Your task to perform on an android device: Go to settings Image 0: 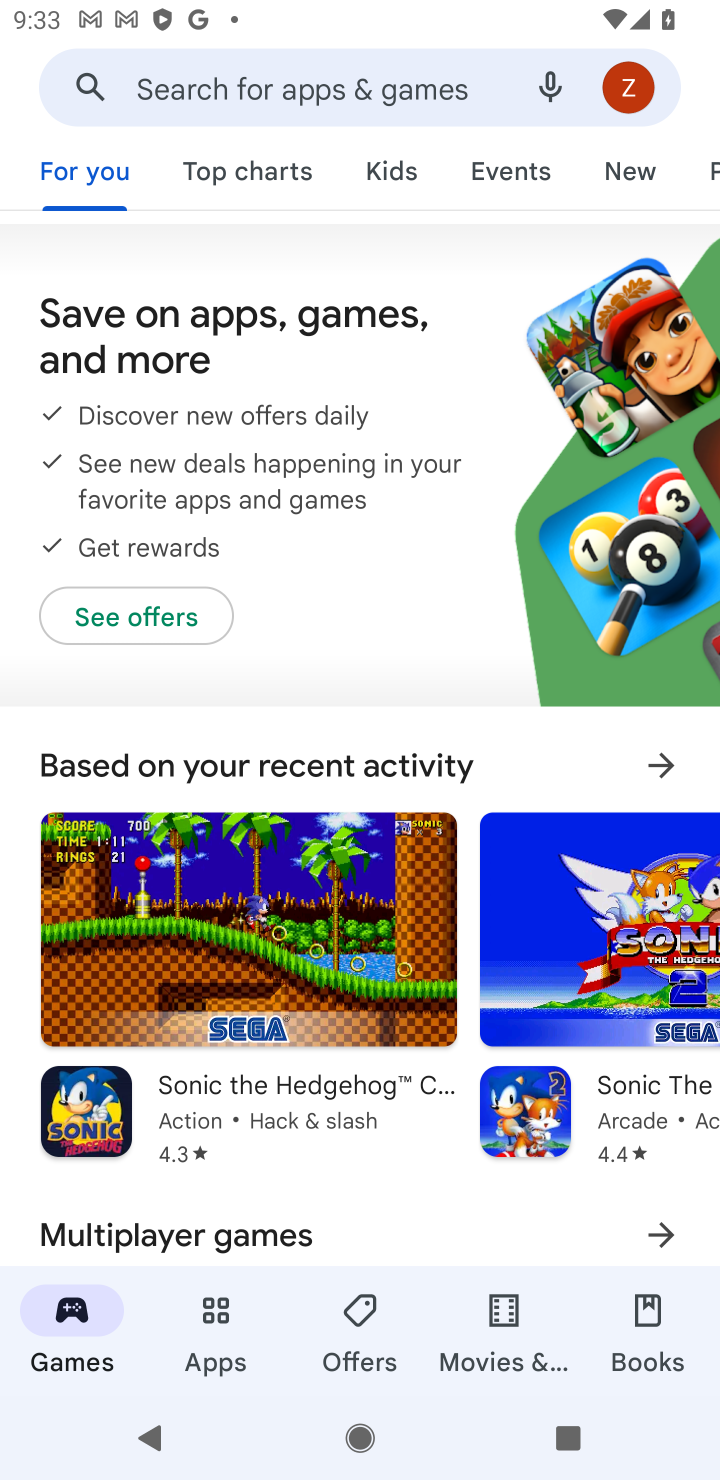
Step 0: press home button
Your task to perform on an android device: Go to settings Image 1: 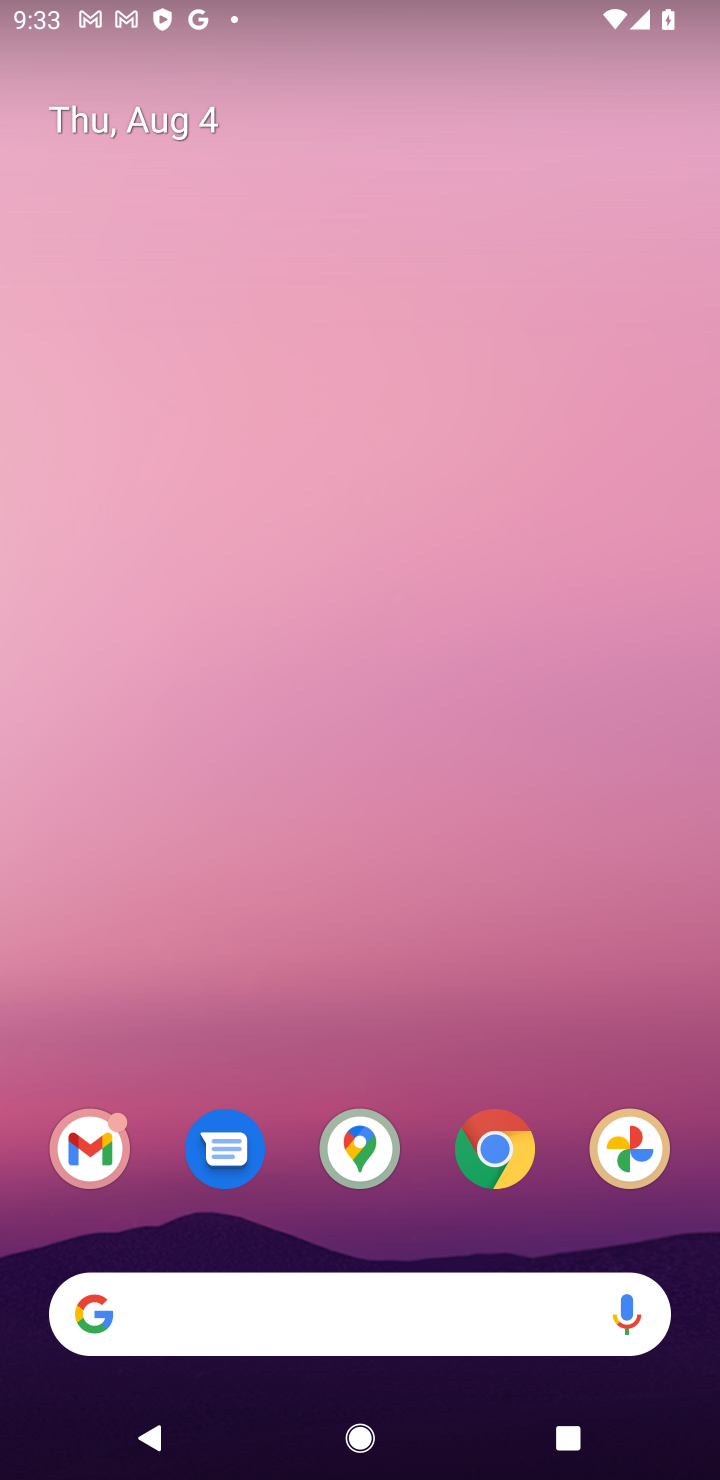
Step 1: drag from (555, 1210) to (539, 602)
Your task to perform on an android device: Go to settings Image 2: 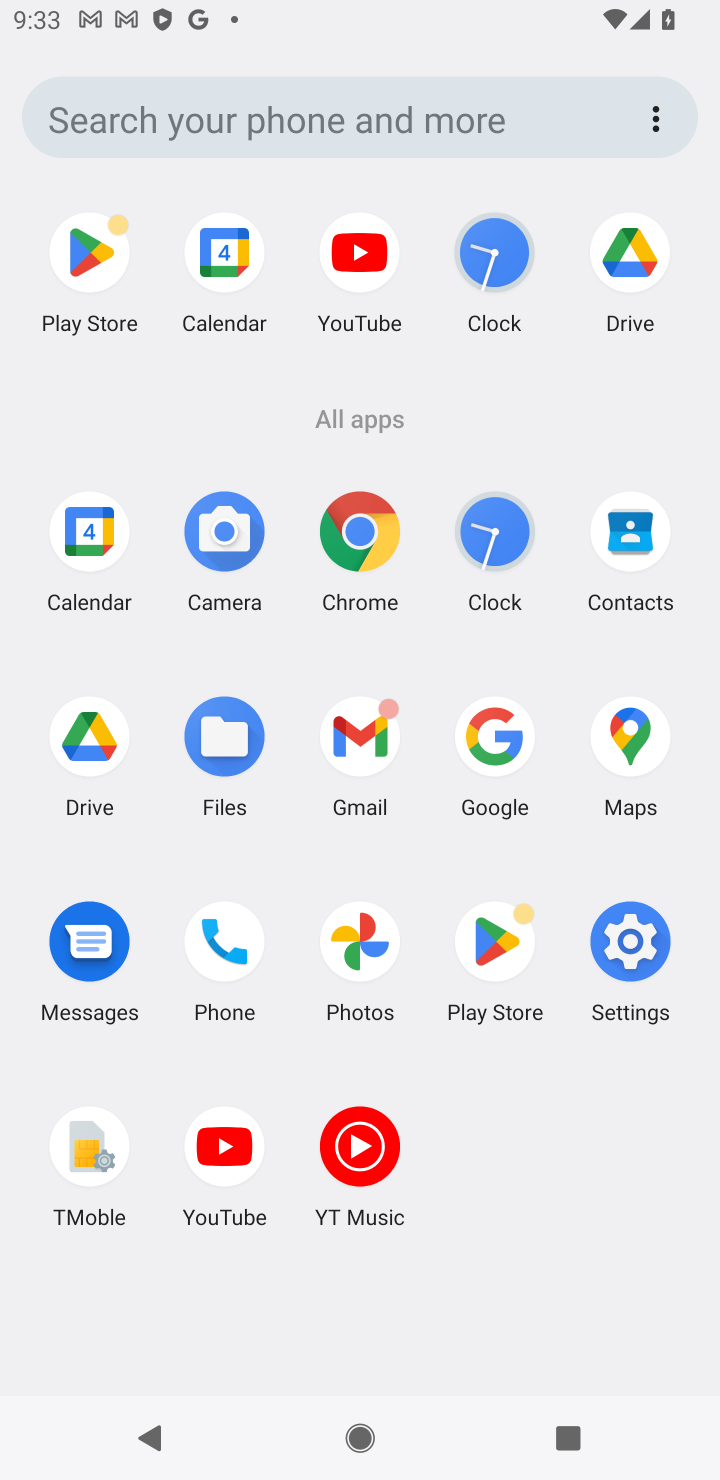
Step 2: click (633, 945)
Your task to perform on an android device: Go to settings Image 3: 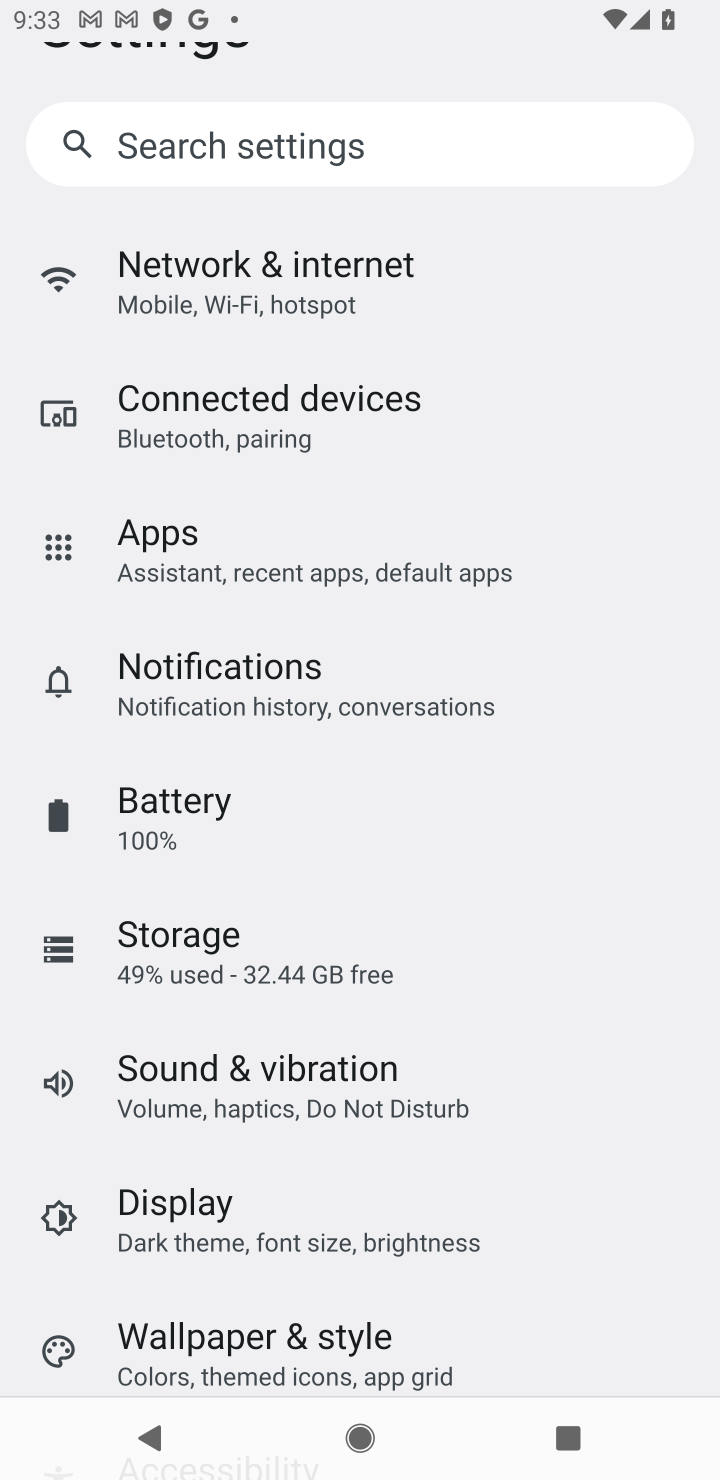
Step 3: task complete